Your task to perform on an android device: Open display settings Image 0: 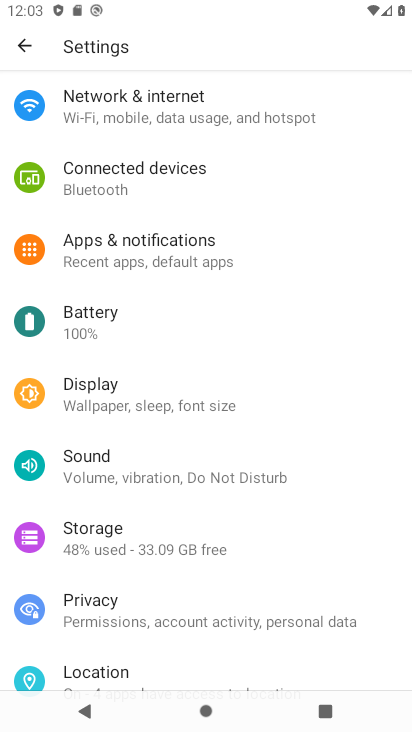
Step 0: click (111, 390)
Your task to perform on an android device: Open display settings Image 1: 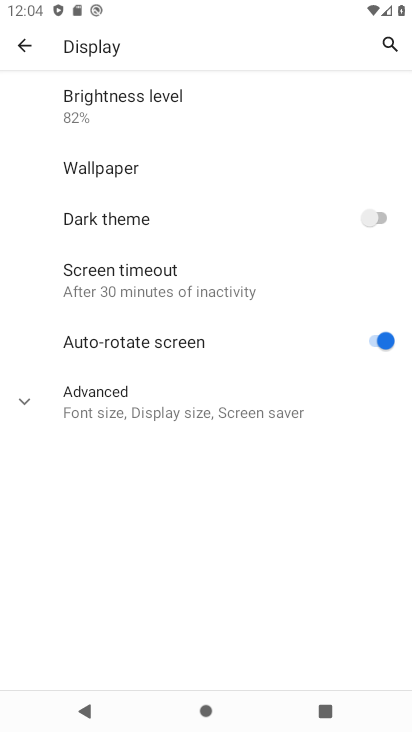
Step 1: task complete